Your task to perform on an android device: Open Google Chrome and open the bookmarks view Image 0: 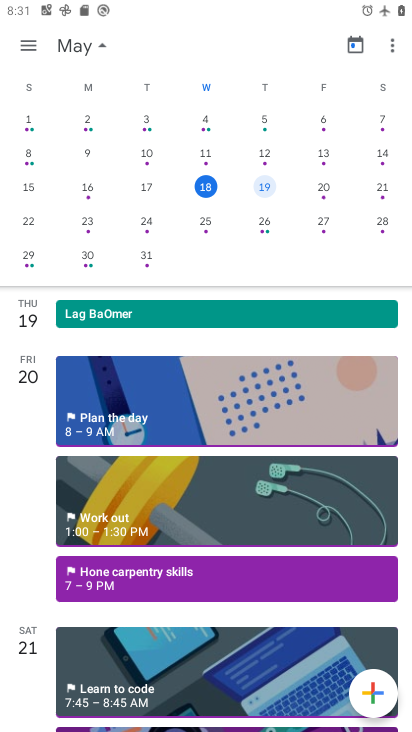
Step 0: press home button
Your task to perform on an android device: Open Google Chrome and open the bookmarks view Image 1: 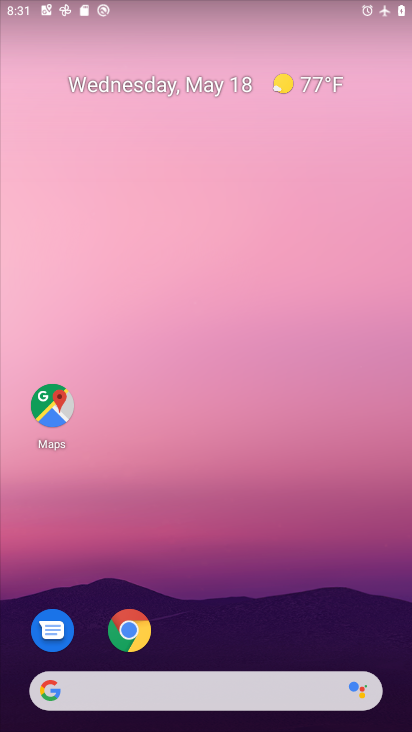
Step 1: click (122, 634)
Your task to perform on an android device: Open Google Chrome and open the bookmarks view Image 2: 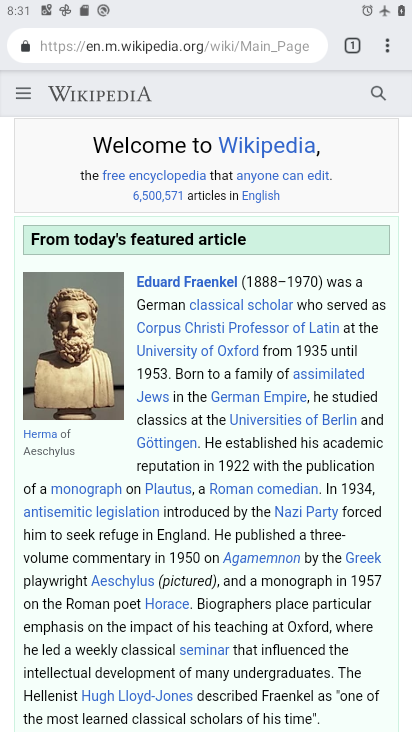
Step 2: task complete